Your task to perform on an android device: Open Google Image 0: 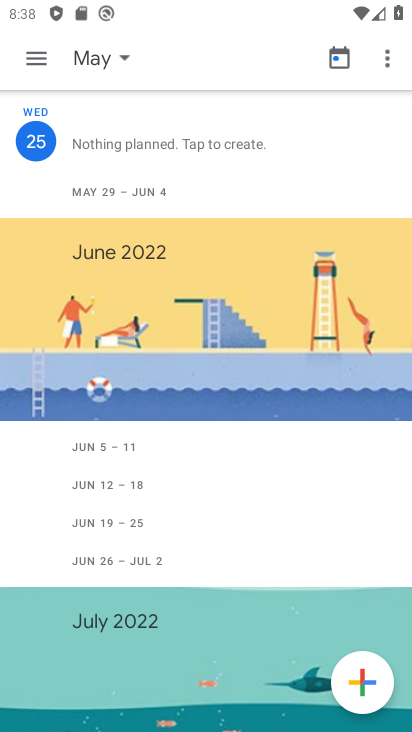
Step 0: press back button
Your task to perform on an android device: Open Google Image 1: 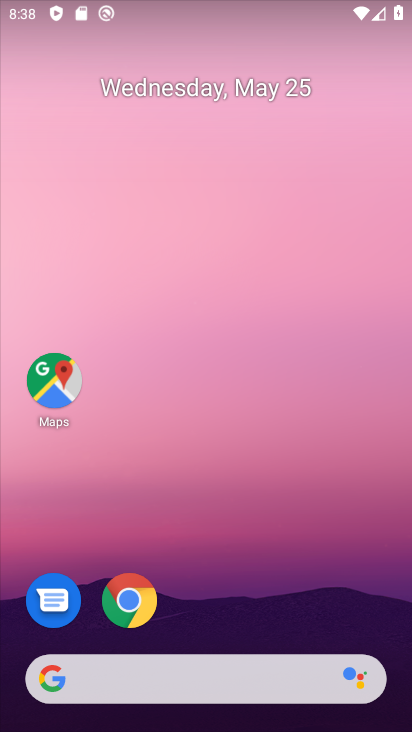
Step 1: drag from (252, 564) to (175, 17)
Your task to perform on an android device: Open Google Image 2: 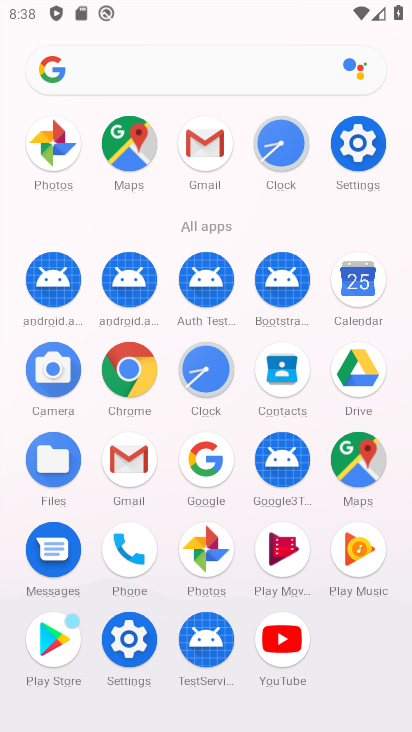
Step 2: drag from (2, 469) to (0, 275)
Your task to perform on an android device: Open Google Image 3: 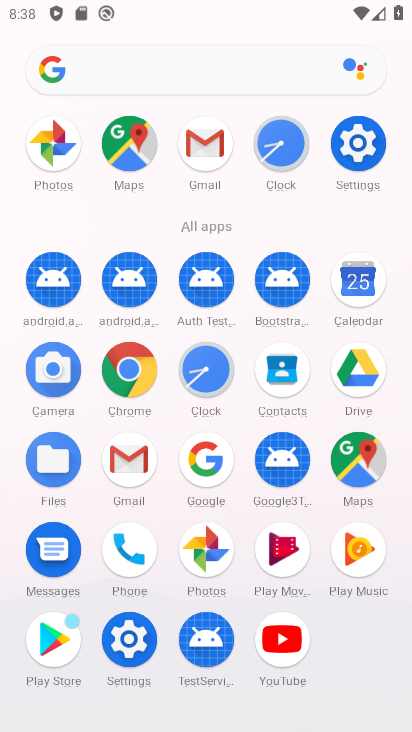
Step 3: click (123, 354)
Your task to perform on an android device: Open Google Image 4: 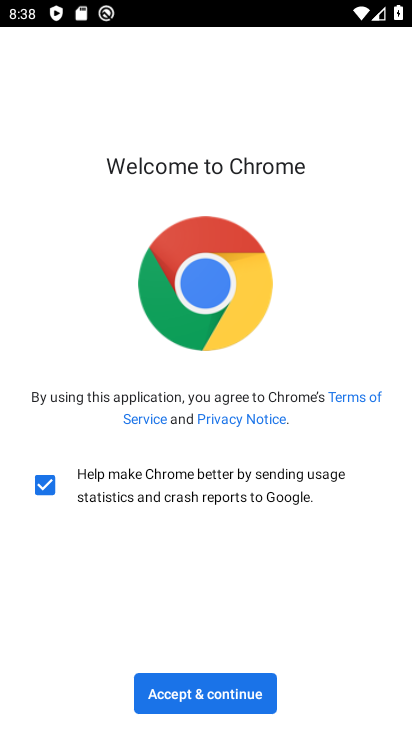
Step 4: click (210, 687)
Your task to perform on an android device: Open Google Image 5: 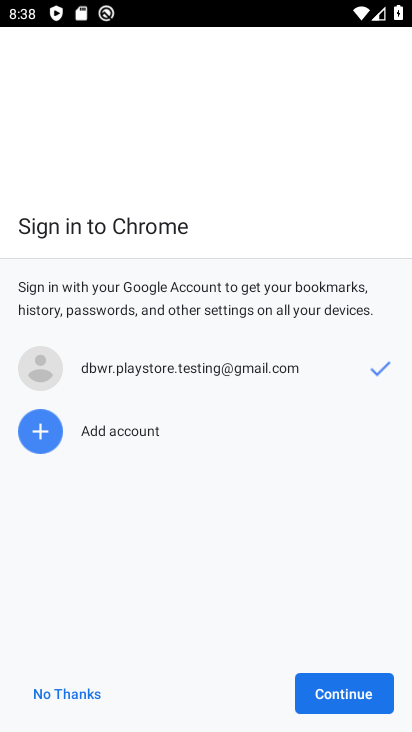
Step 5: click (361, 677)
Your task to perform on an android device: Open Google Image 6: 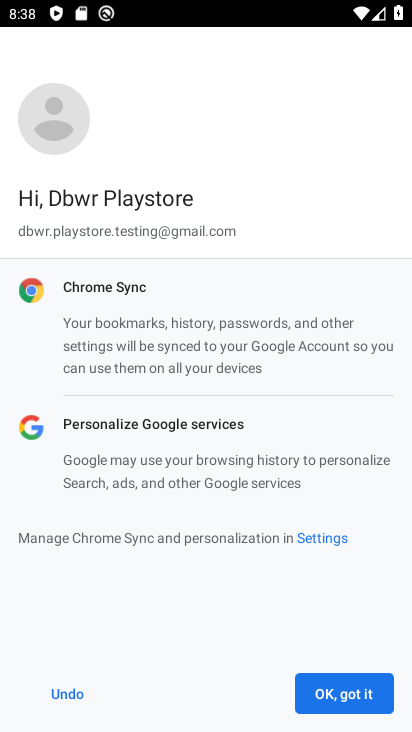
Step 6: click (345, 687)
Your task to perform on an android device: Open Google Image 7: 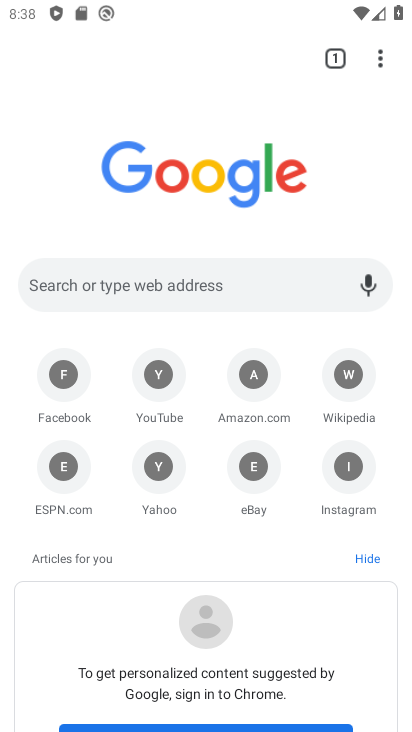
Step 7: click (164, 50)
Your task to perform on an android device: Open Google Image 8: 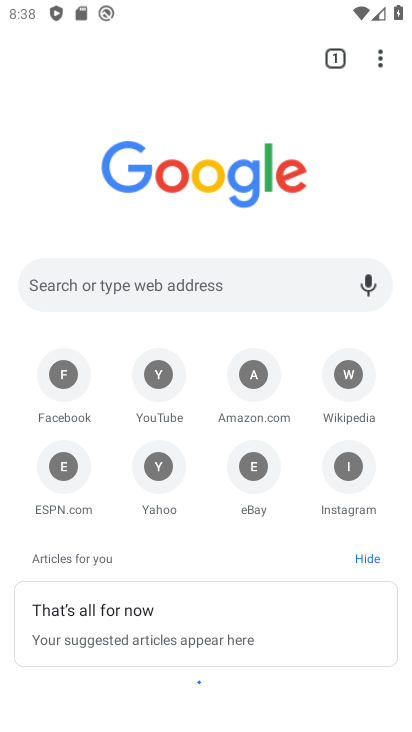
Step 8: click (162, 294)
Your task to perform on an android device: Open Google Image 9: 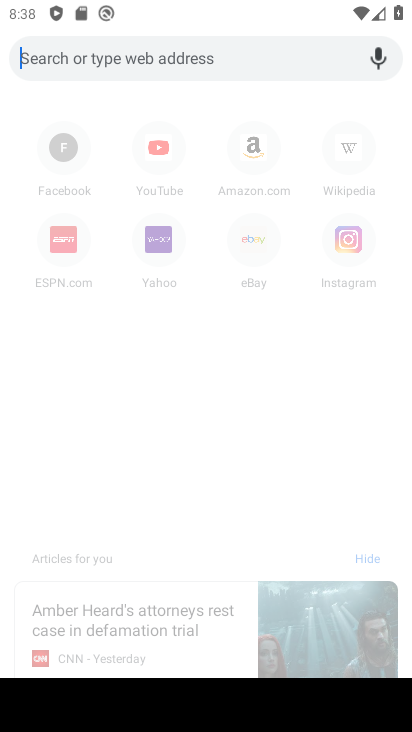
Step 9: type "Google"
Your task to perform on an android device: Open Google Image 10: 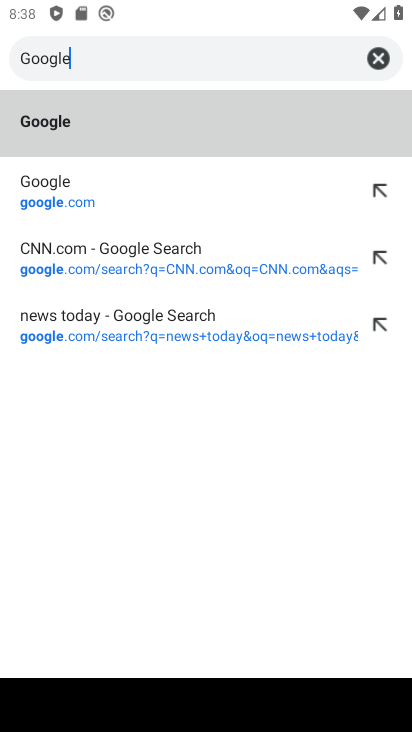
Step 10: type ""
Your task to perform on an android device: Open Google Image 11: 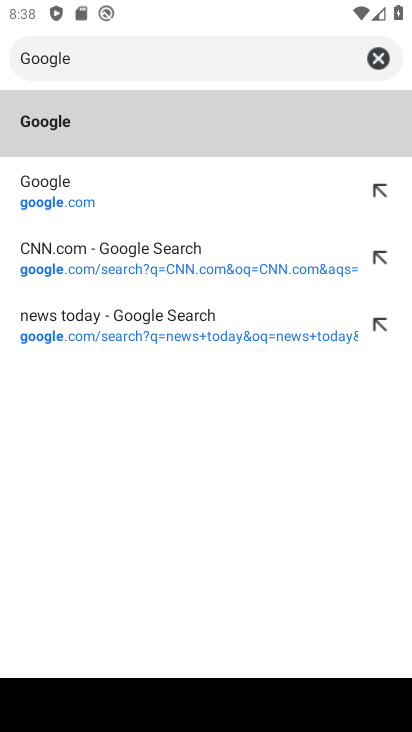
Step 11: click (65, 205)
Your task to perform on an android device: Open Google Image 12: 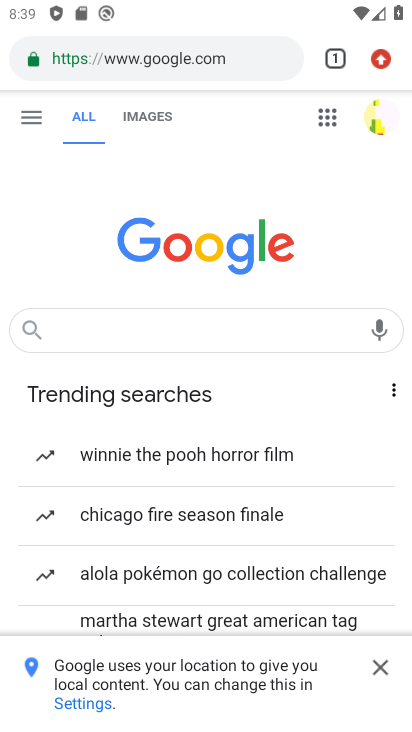
Step 12: task complete